Your task to perform on an android device: toggle translation in the chrome app Image 0: 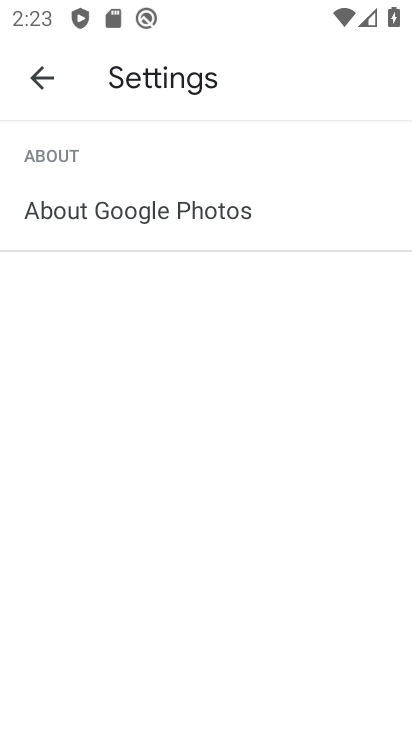
Step 0: press back button
Your task to perform on an android device: toggle translation in the chrome app Image 1: 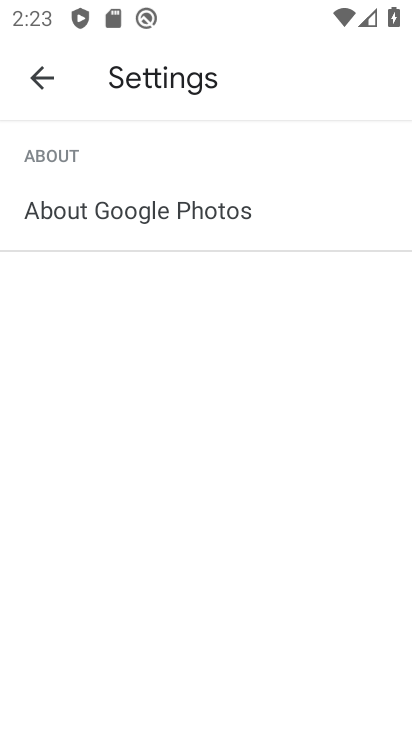
Step 1: press back button
Your task to perform on an android device: toggle translation in the chrome app Image 2: 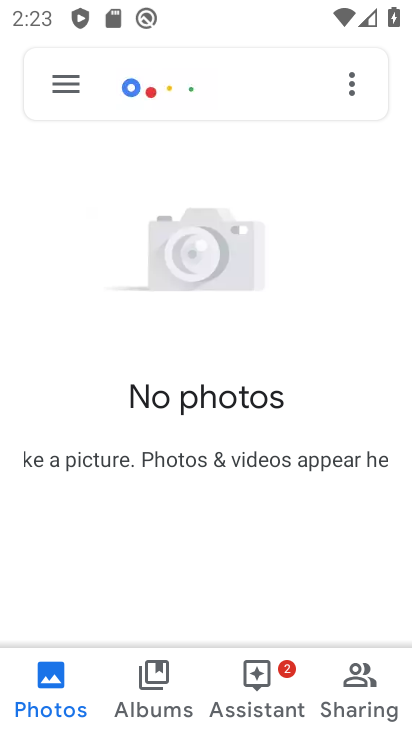
Step 2: press back button
Your task to perform on an android device: toggle translation in the chrome app Image 3: 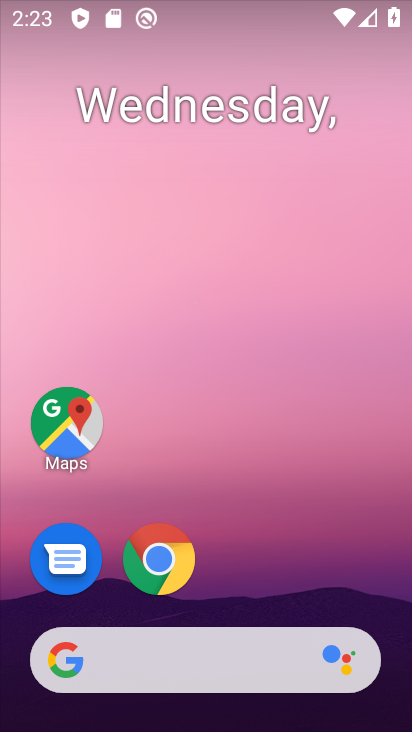
Step 3: click (159, 572)
Your task to perform on an android device: toggle translation in the chrome app Image 4: 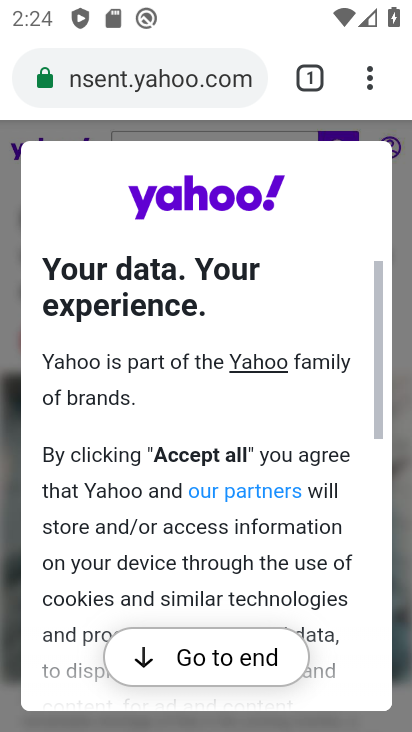
Step 4: drag from (366, 83) to (118, 622)
Your task to perform on an android device: toggle translation in the chrome app Image 5: 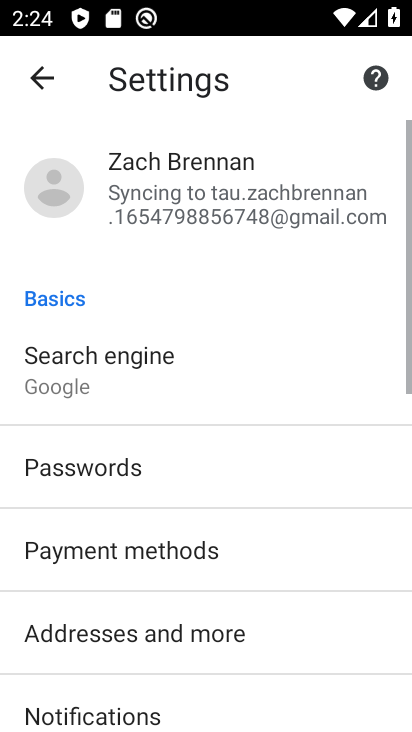
Step 5: drag from (128, 613) to (213, 187)
Your task to perform on an android device: toggle translation in the chrome app Image 6: 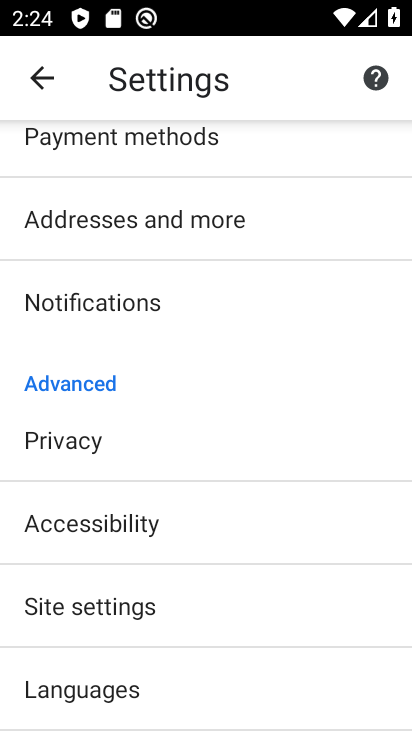
Step 6: click (50, 700)
Your task to perform on an android device: toggle translation in the chrome app Image 7: 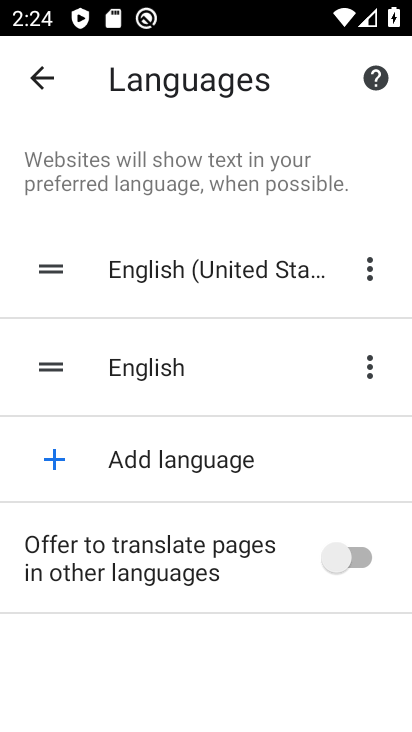
Step 7: click (347, 565)
Your task to perform on an android device: toggle translation in the chrome app Image 8: 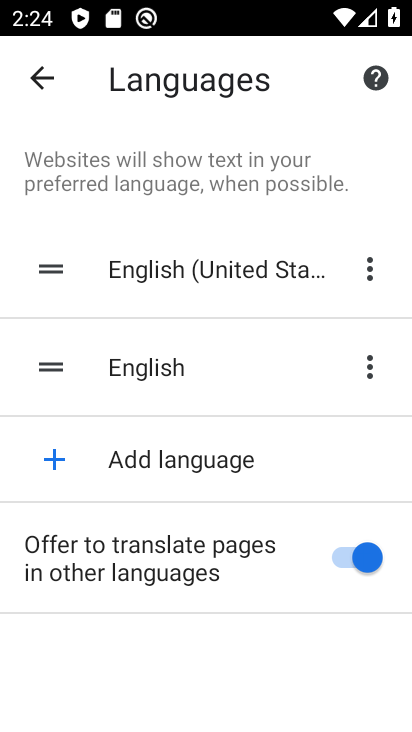
Step 8: task complete